Your task to perform on an android device: Go to eBay Image 0: 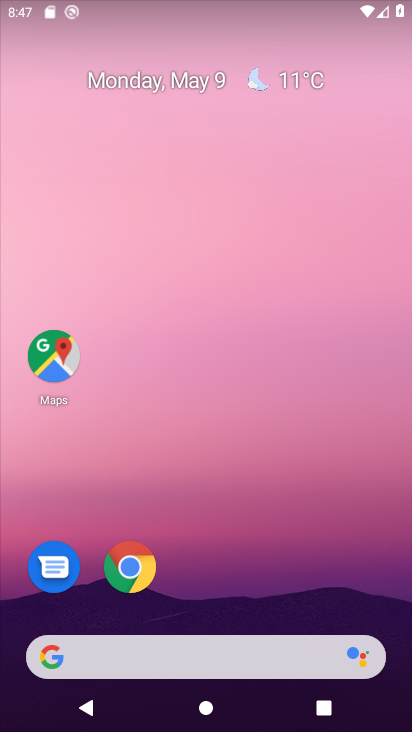
Step 0: click (263, 654)
Your task to perform on an android device: Go to eBay Image 1: 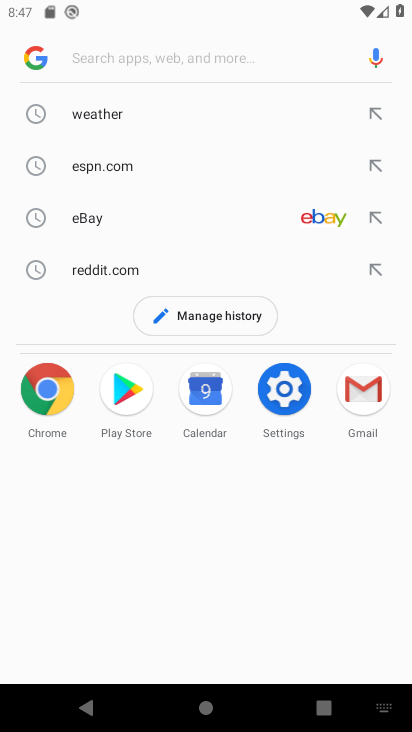
Step 1: click (318, 210)
Your task to perform on an android device: Go to eBay Image 2: 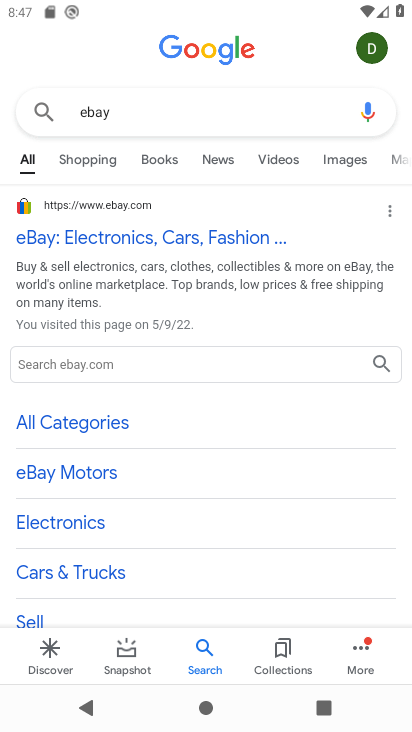
Step 2: click (196, 233)
Your task to perform on an android device: Go to eBay Image 3: 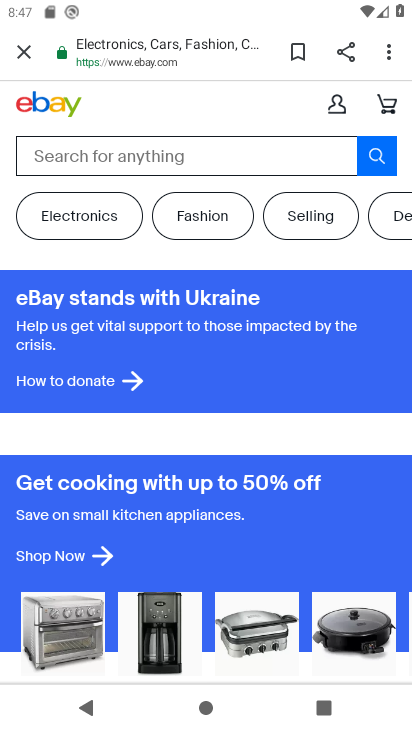
Step 3: task complete